Your task to perform on an android device: Open Google Image 0: 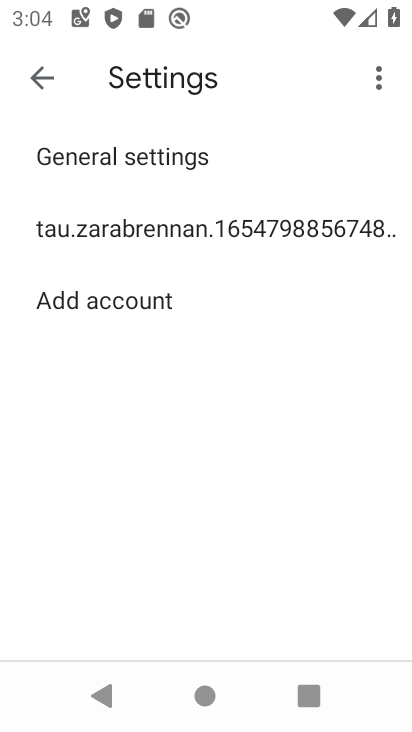
Step 0: press back button
Your task to perform on an android device: Open Google Image 1: 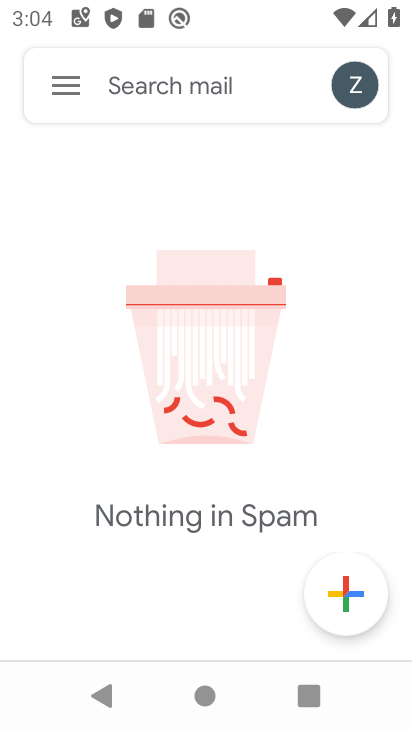
Step 1: press back button
Your task to perform on an android device: Open Google Image 2: 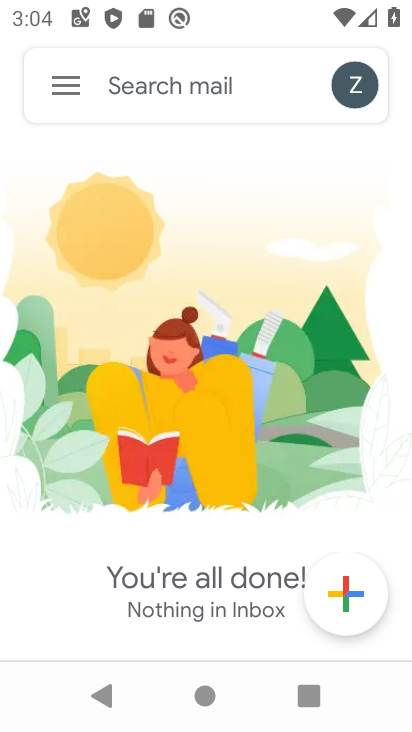
Step 2: press back button
Your task to perform on an android device: Open Google Image 3: 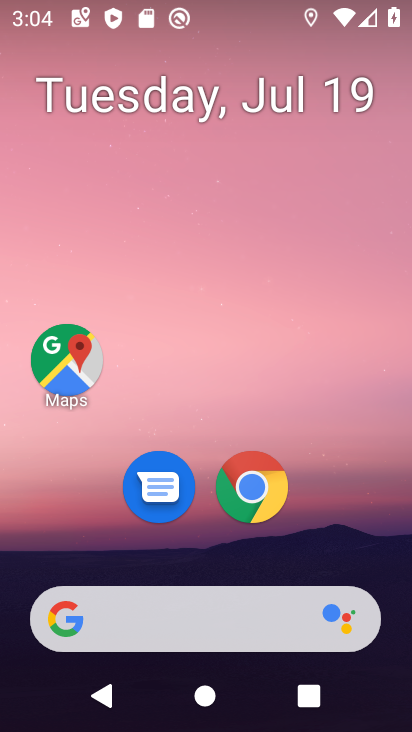
Step 3: click (175, 622)
Your task to perform on an android device: Open Google Image 4: 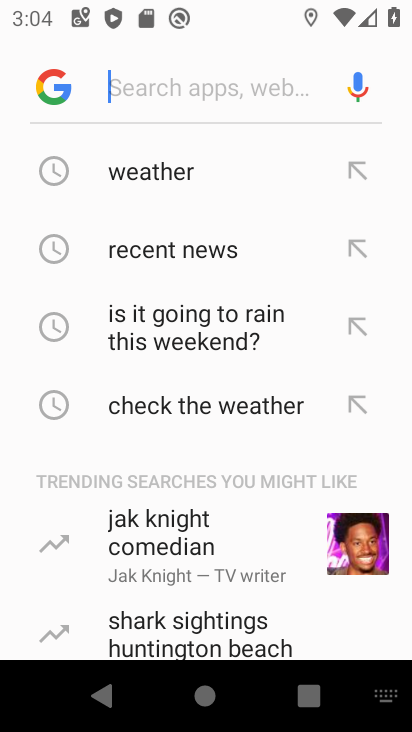
Step 4: task complete